Your task to perform on an android device: Open Yahoo.com Image 0: 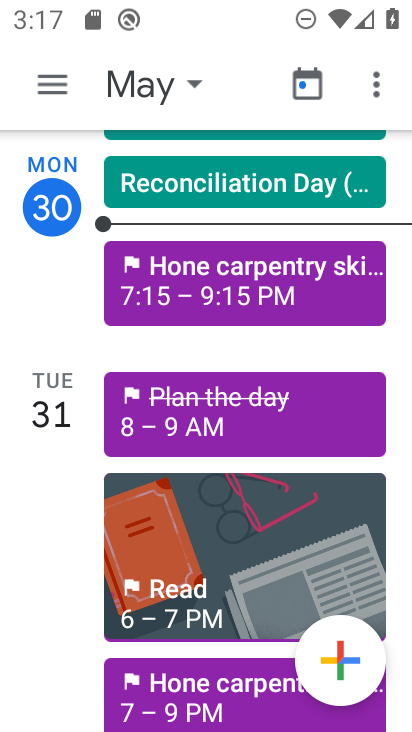
Step 0: press home button
Your task to perform on an android device: Open Yahoo.com Image 1: 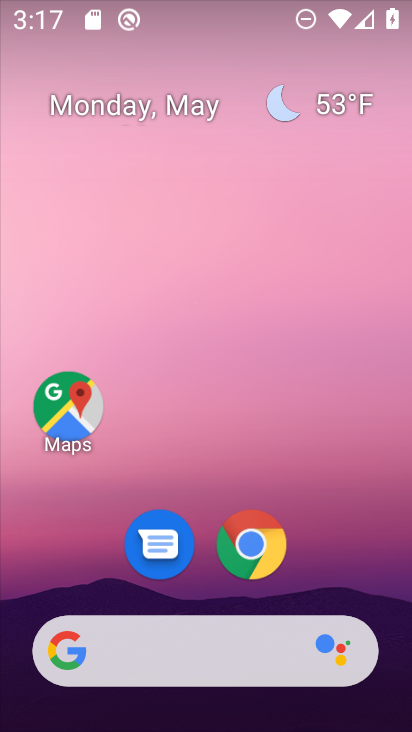
Step 1: drag from (162, 731) to (80, 44)
Your task to perform on an android device: Open Yahoo.com Image 2: 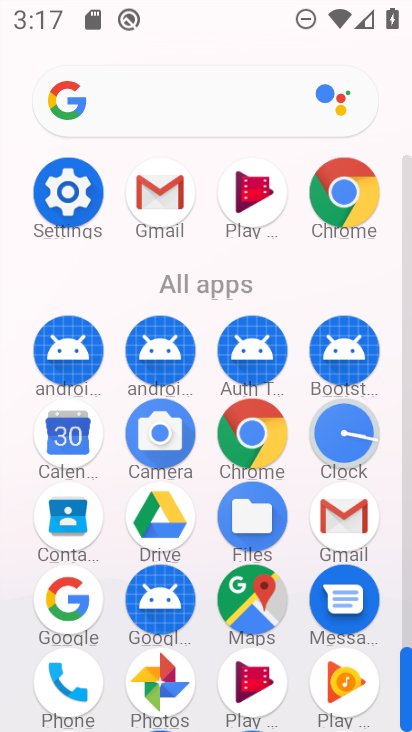
Step 2: click (341, 214)
Your task to perform on an android device: Open Yahoo.com Image 3: 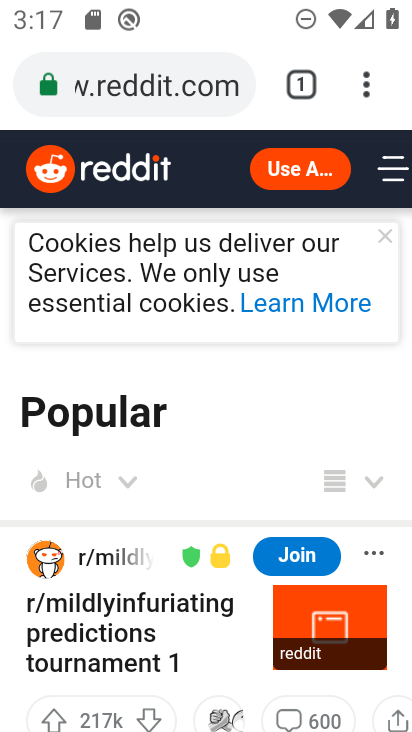
Step 3: click (308, 81)
Your task to perform on an android device: Open Yahoo.com Image 4: 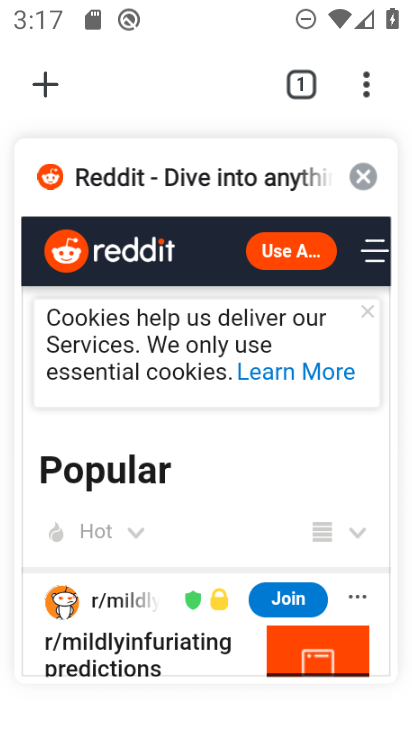
Step 4: click (365, 189)
Your task to perform on an android device: Open Yahoo.com Image 5: 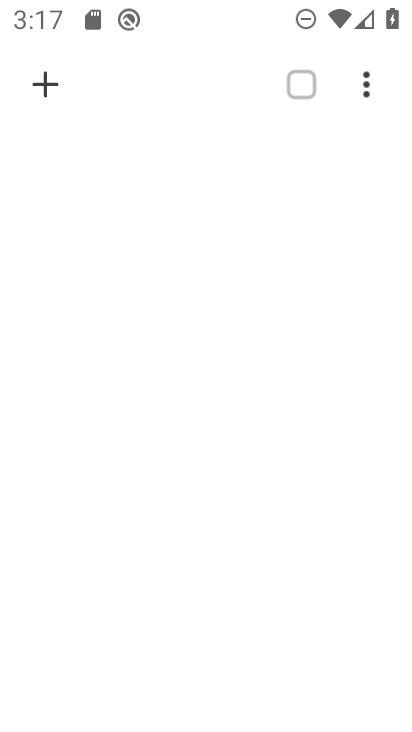
Step 5: click (46, 87)
Your task to perform on an android device: Open Yahoo.com Image 6: 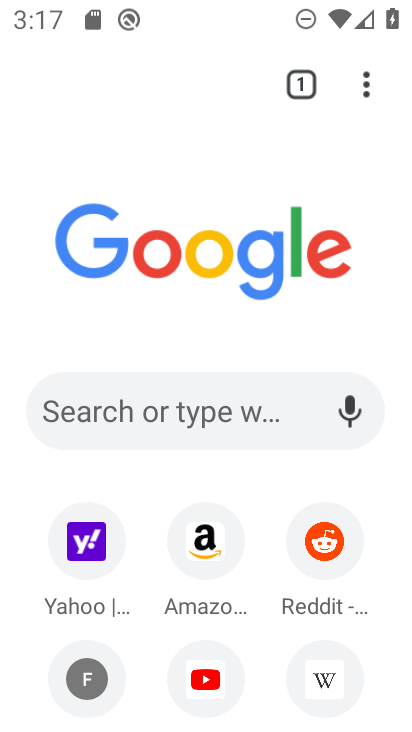
Step 6: click (96, 554)
Your task to perform on an android device: Open Yahoo.com Image 7: 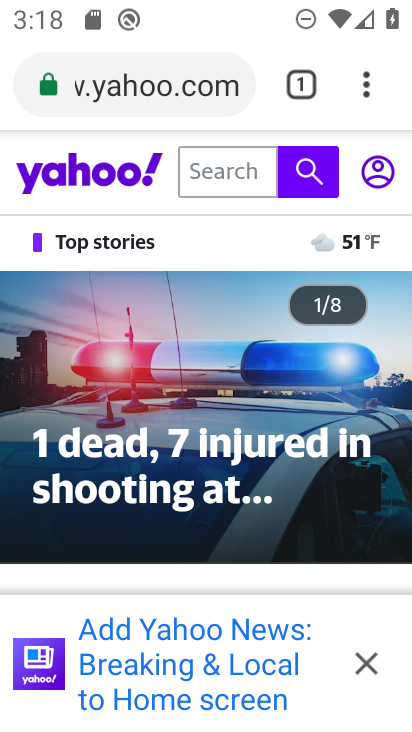
Step 7: task complete